Your task to perform on an android device: turn on data saver in the chrome app Image 0: 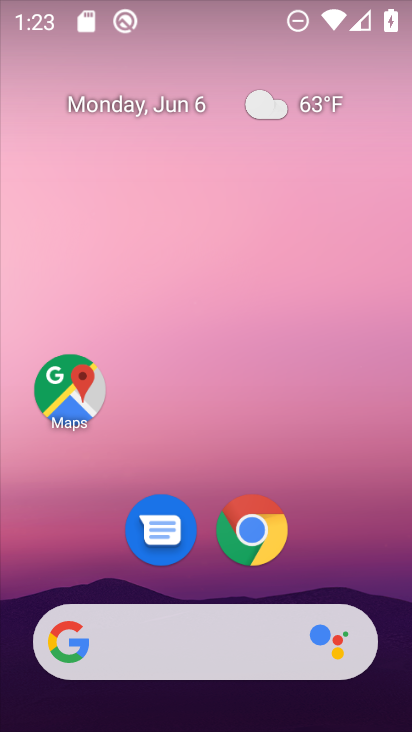
Step 0: click (253, 531)
Your task to perform on an android device: turn on data saver in the chrome app Image 1: 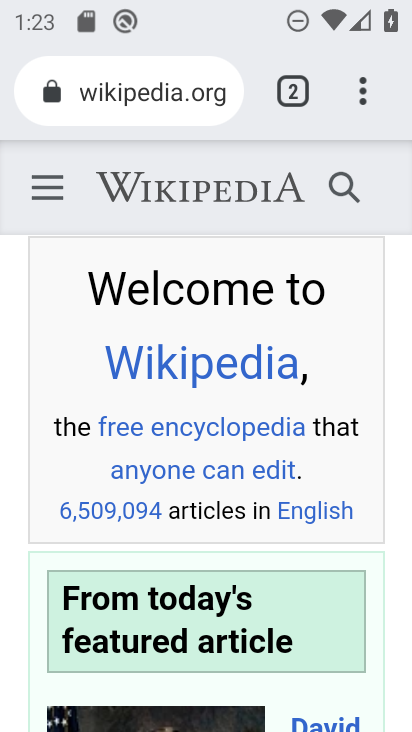
Step 1: click (363, 94)
Your task to perform on an android device: turn on data saver in the chrome app Image 2: 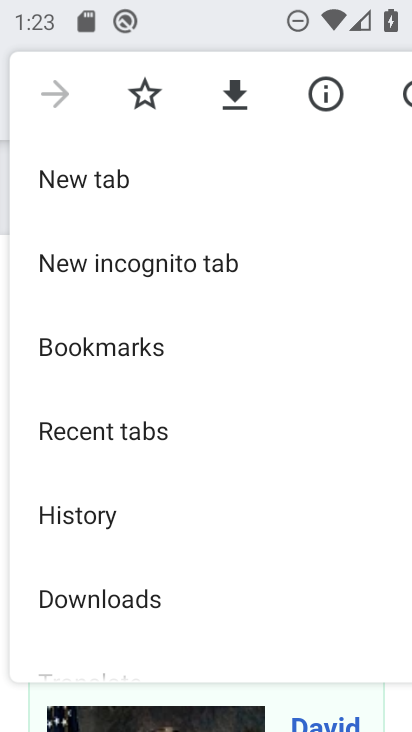
Step 2: drag from (122, 482) to (171, 300)
Your task to perform on an android device: turn on data saver in the chrome app Image 3: 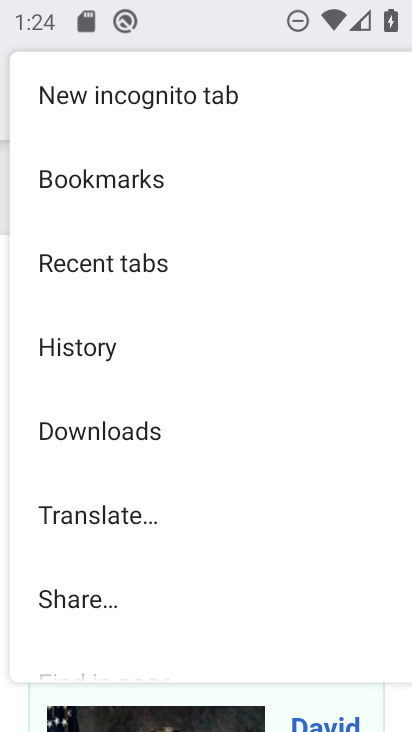
Step 3: drag from (97, 470) to (183, 363)
Your task to perform on an android device: turn on data saver in the chrome app Image 4: 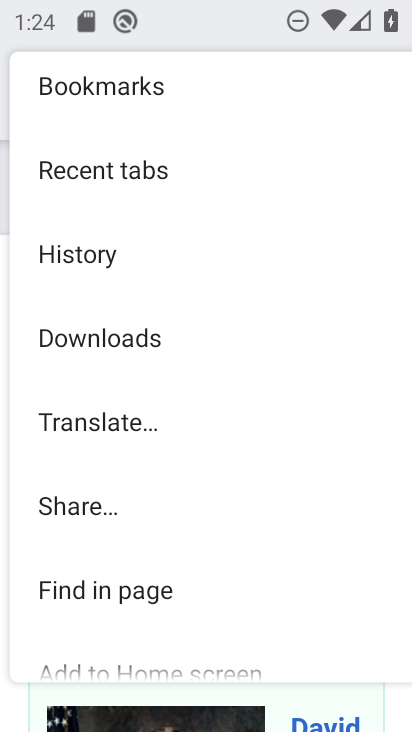
Step 4: drag from (115, 476) to (198, 376)
Your task to perform on an android device: turn on data saver in the chrome app Image 5: 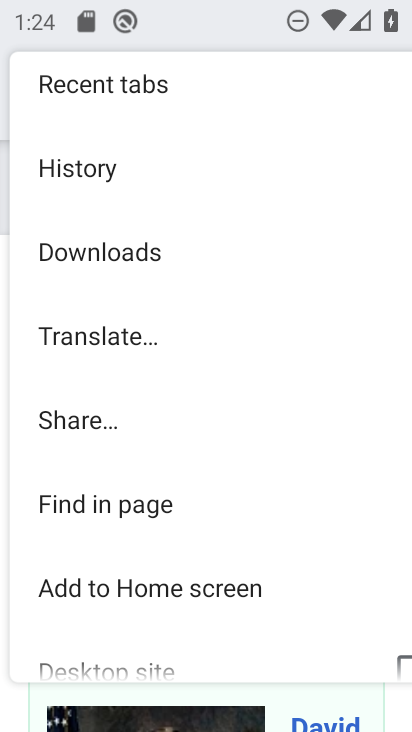
Step 5: drag from (101, 463) to (179, 366)
Your task to perform on an android device: turn on data saver in the chrome app Image 6: 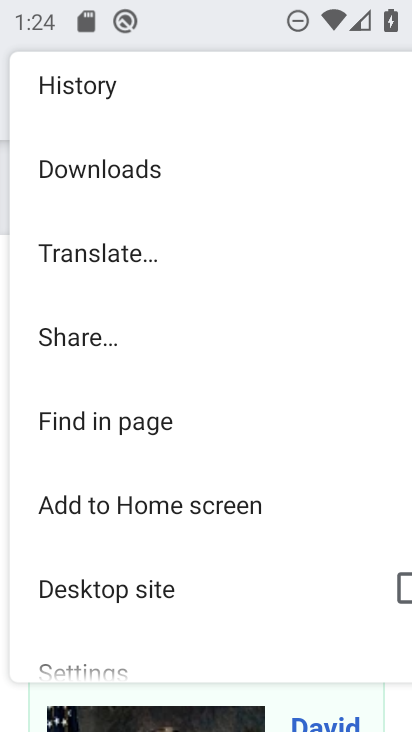
Step 6: drag from (86, 464) to (183, 352)
Your task to perform on an android device: turn on data saver in the chrome app Image 7: 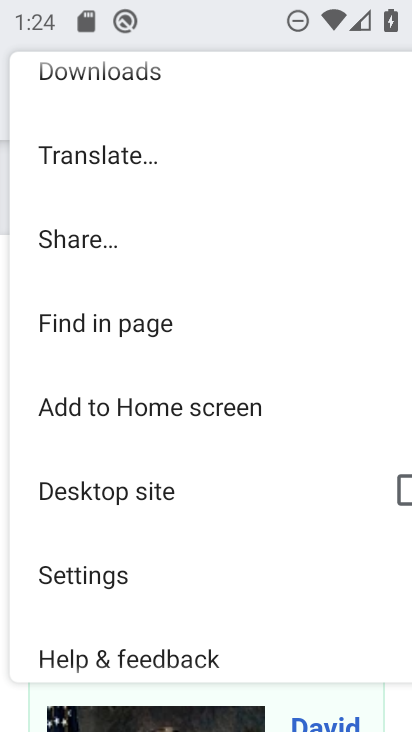
Step 7: drag from (96, 528) to (191, 377)
Your task to perform on an android device: turn on data saver in the chrome app Image 8: 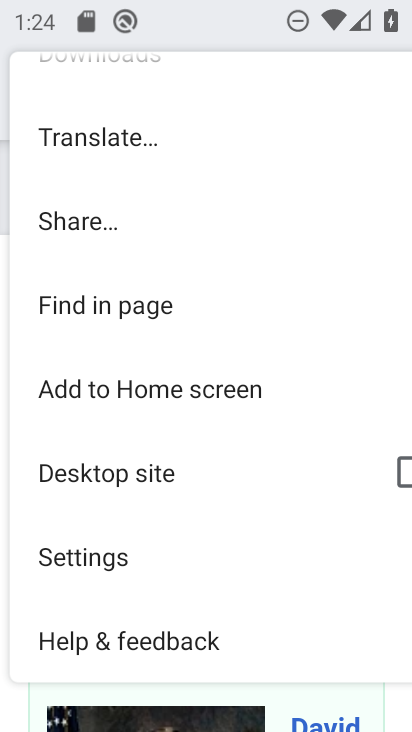
Step 8: click (114, 559)
Your task to perform on an android device: turn on data saver in the chrome app Image 9: 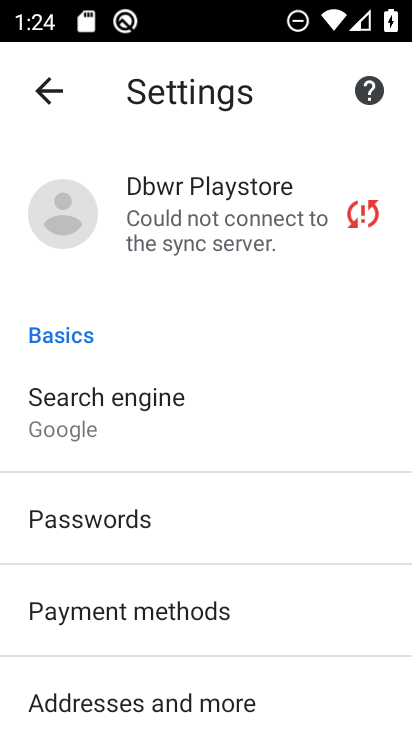
Step 9: drag from (189, 512) to (269, 419)
Your task to perform on an android device: turn on data saver in the chrome app Image 10: 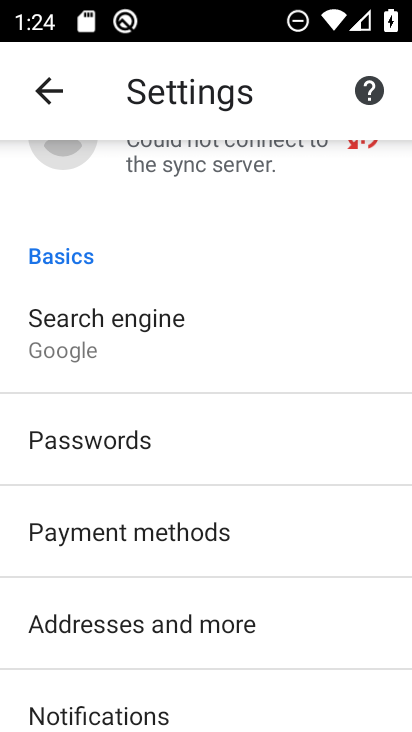
Step 10: drag from (156, 653) to (181, 163)
Your task to perform on an android device: turn on data saver in the chrome app Image 11: 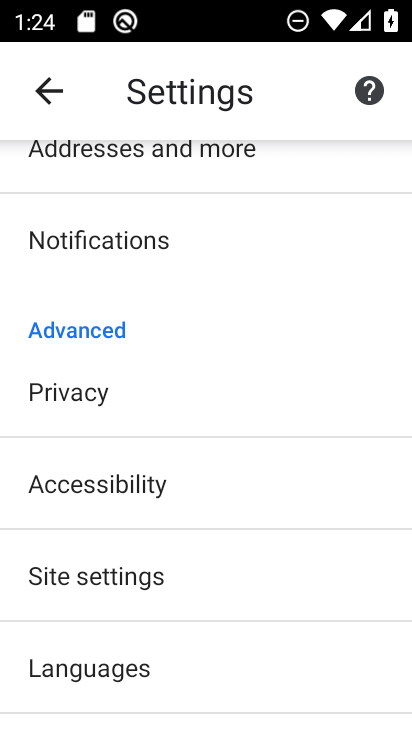
Step 11: drag from (151, 526) to (197, 273)
Your task to perform on an android device: turn on data saver in the chrome app Image 12: 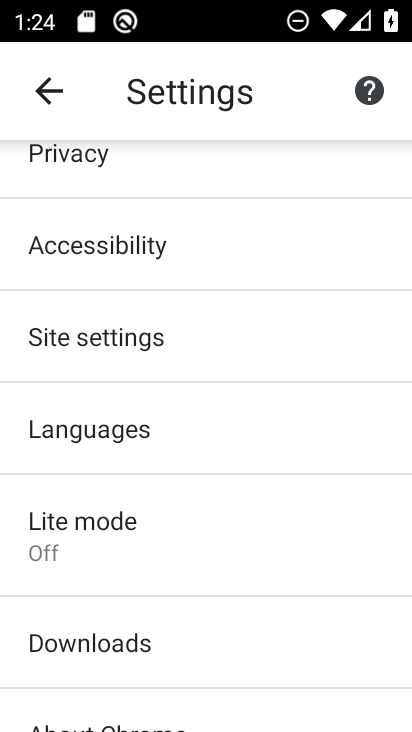
Step 12: click (121, 577)
Your task to perform on an android device: turn on data saver in the chrome app Image 13: 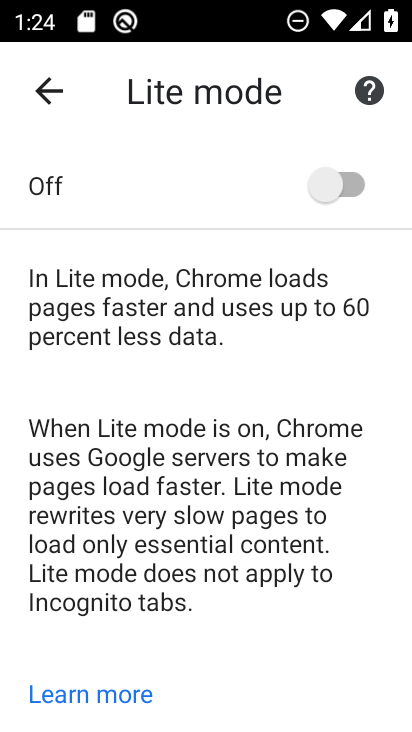
Step 13: click (320, 180)
Your task to perform on an android device: turn on data saver in the chrome app Image 14: 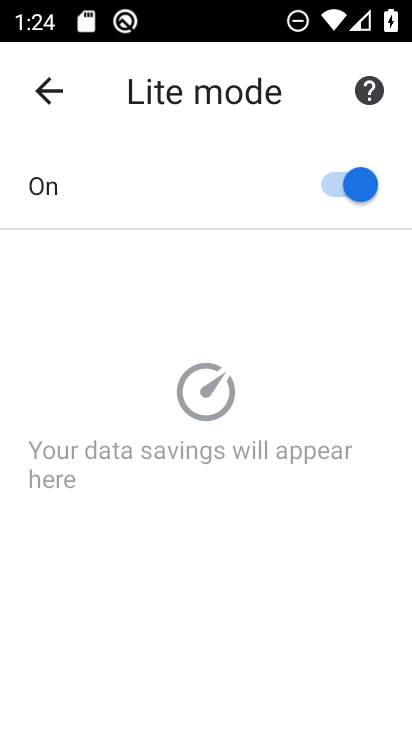
Step 14: task complete